Your task to perform on an android device: Open my contact list Image 0: 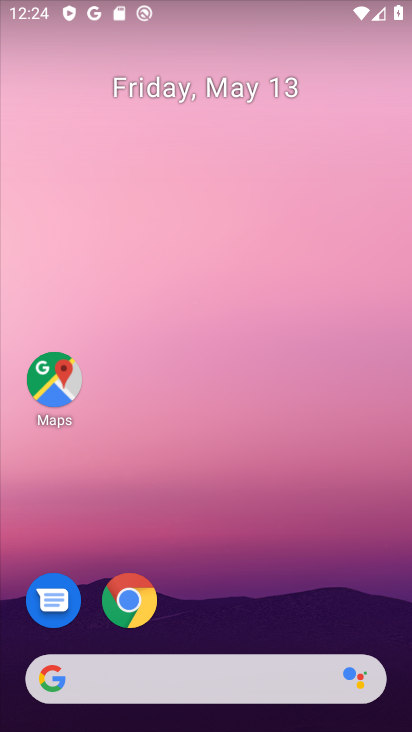
Step 0: drag from (228, 556) to (277, 195)
Your task to perform on an android device: Open my contact list Image 1: 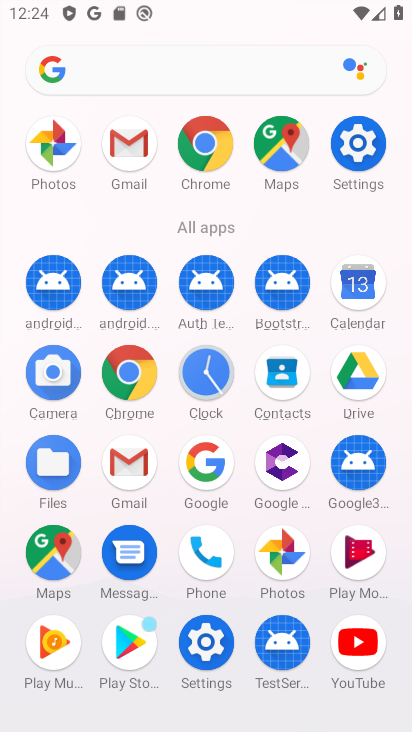
Step 1: click (270, 371)
Your task to perform on an android device: Open my contact list Image 2: 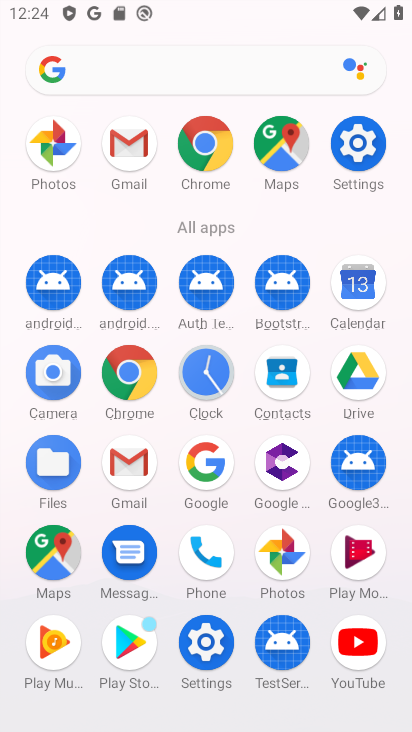
Step 2: click (270, 371)
Your task to perform on an android device: Open my contact list Image 3: 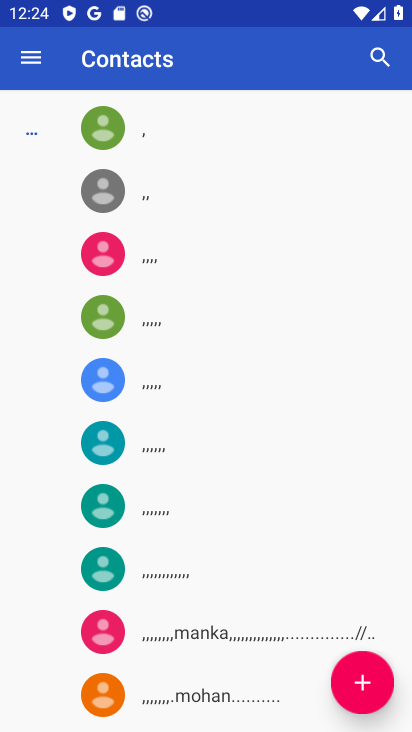
Step 3: task complete